Your task to perform on an android device: Open Amazon Image 0: 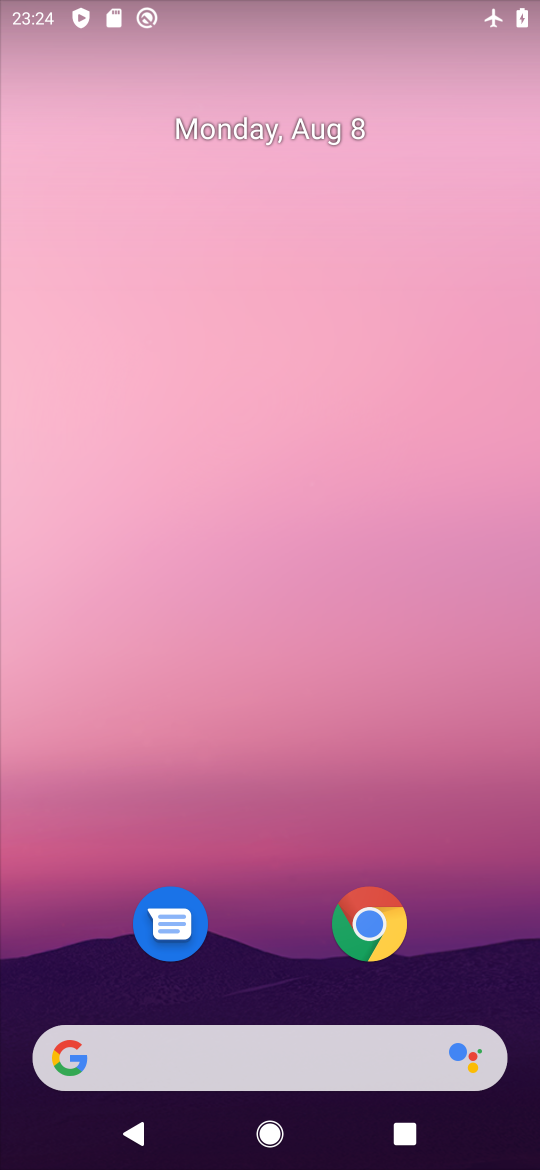
Step 0: click (377, 890)
Your task to perform on an android device: Open Amazon Image 1: 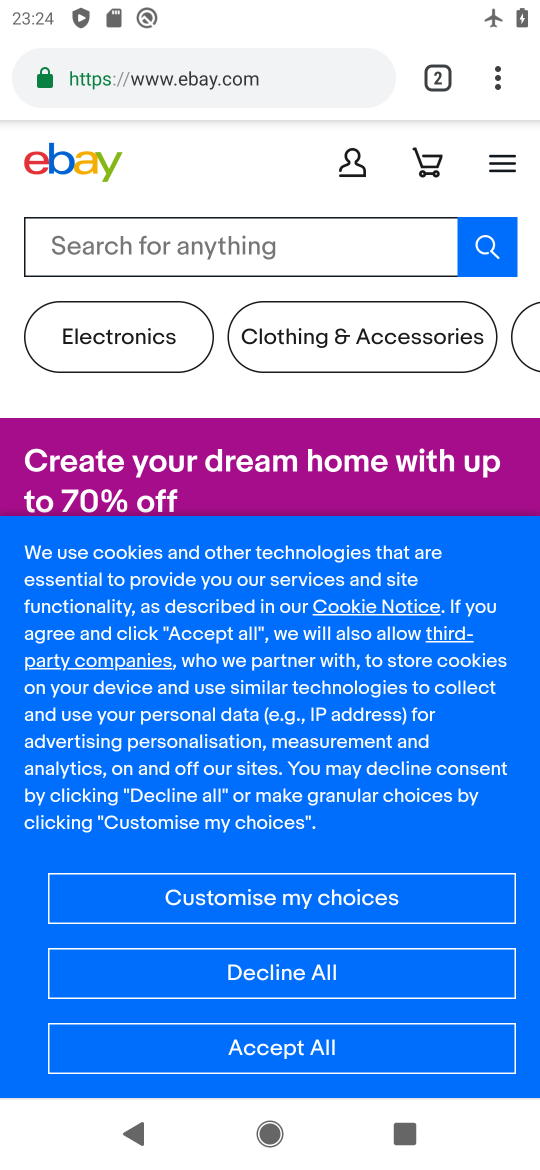
Step 1: click (427, 60)
Your task to perform on an android device: Open Amazon Image 2: 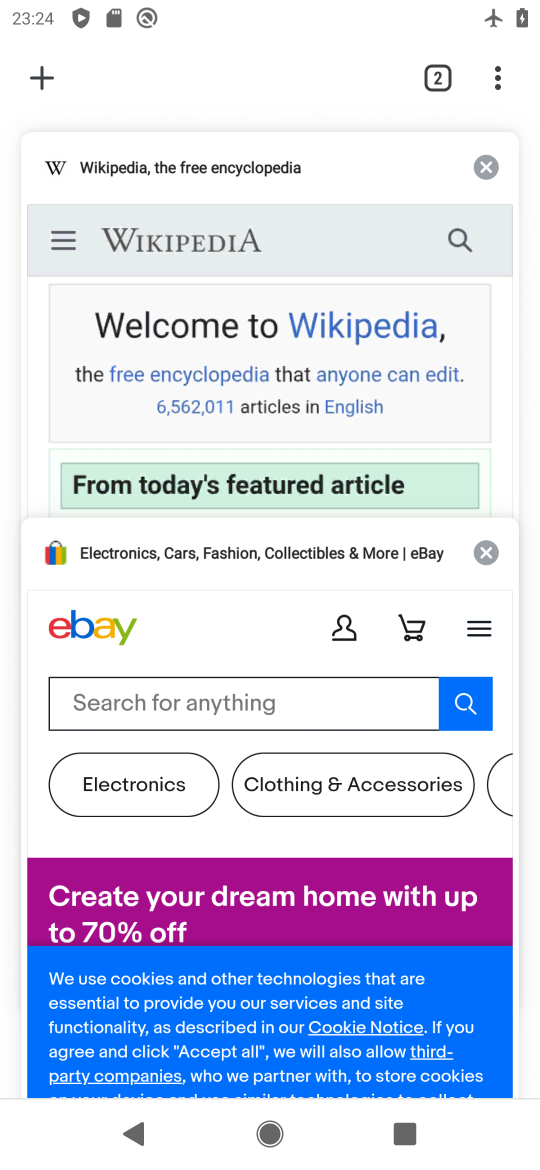
Step 2: click (37, 67)
Your task to perform on an android device: Open Amazon Image 3: 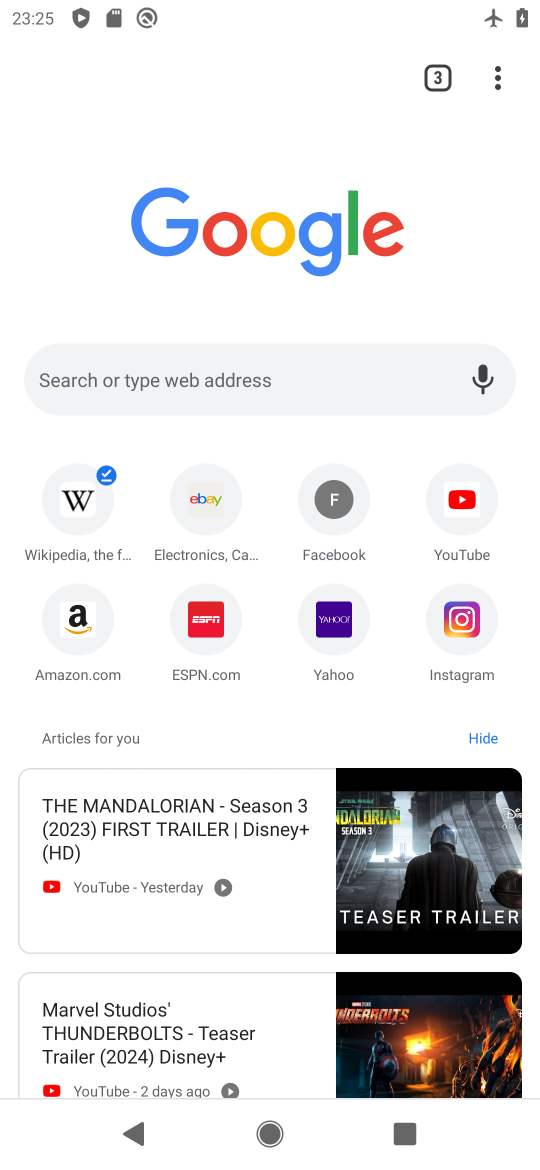
Step 3: click (75, 632)
Your task to perform on an android device: Open Amazon Image 4: 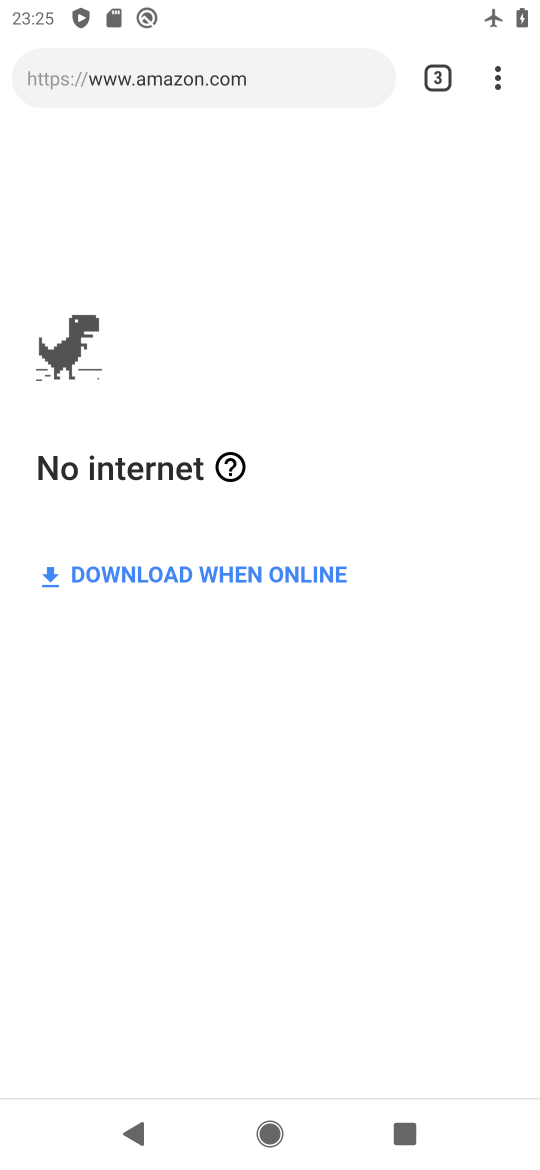
Step 4: task complete